Your task to perform on an android device: toggle airplane mode Image 0: 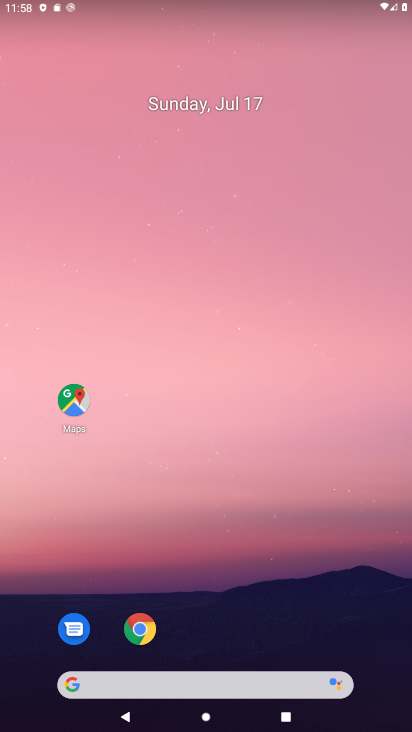
Step 0: press home button
Your task to perform on an android device: toggle airplane mode Image 1: 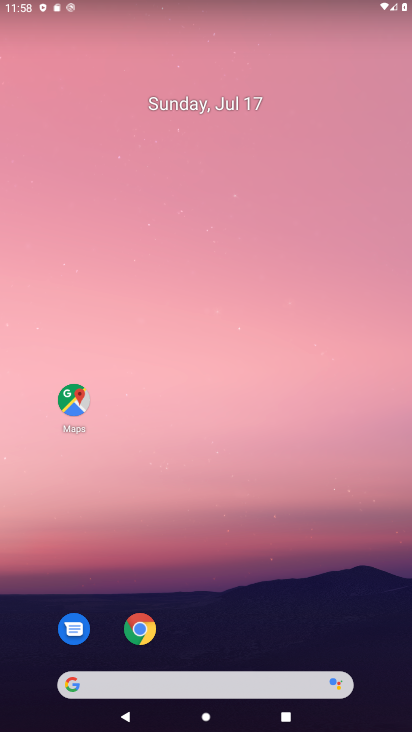
Step 1: drag from (214, 7) to (231, 598)
Your task to perform on an android device: toggle airplane mode Image 2: 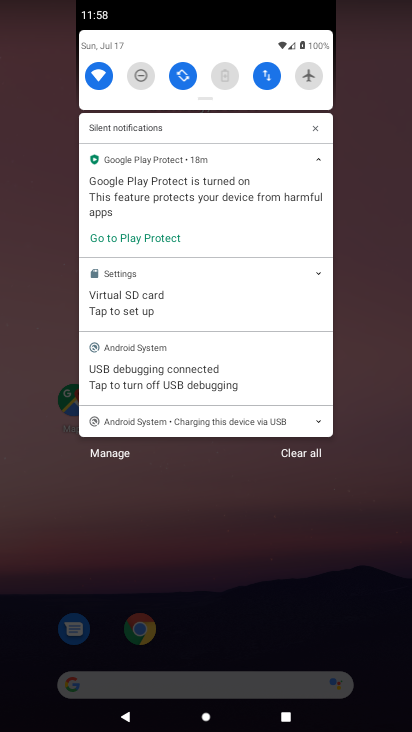
Step 2: click (314, 71)
Your task to perform on an android device: toggle airplane mode Image 3: 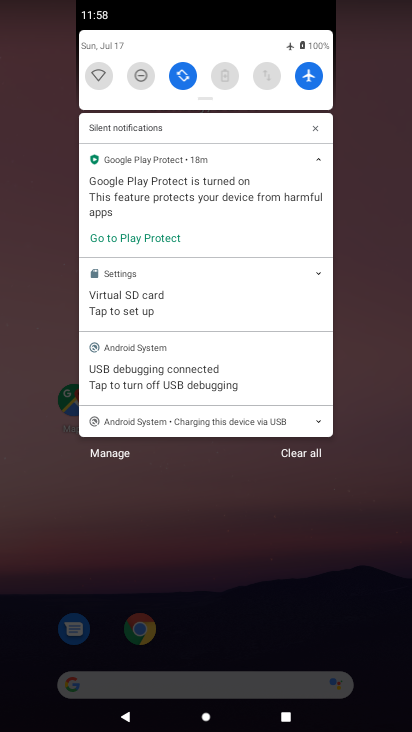
Step 3: task complete